Your task to perform on an android device: check battery use Image 0: 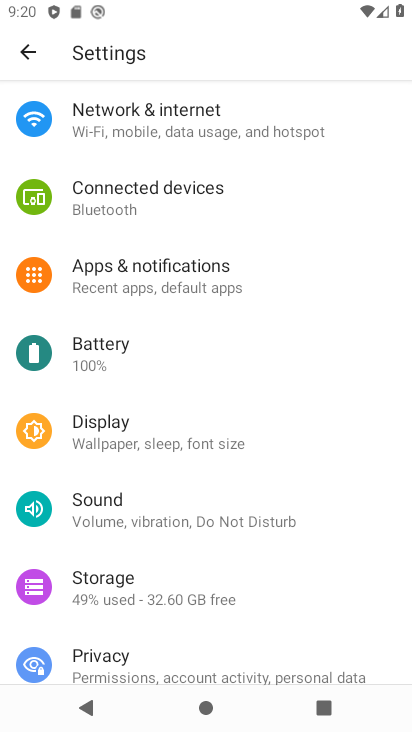
Step 0: drag from (357, 562) to (377, 338)
Your task to perform on an android device: check battery use Image 1: 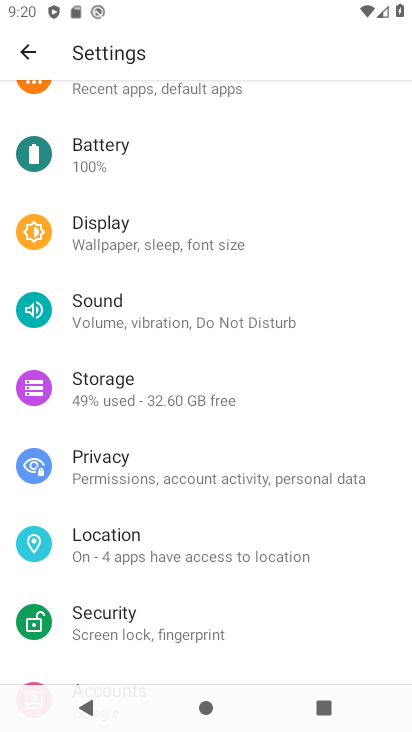
Step 1: drag from (355, 593) to (376, 365)
Your task to perform on an android device: check battery use Image 2: 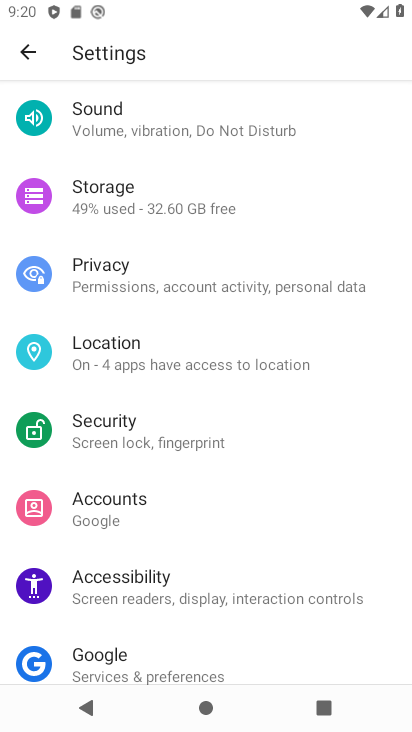
Step 2: drag from (368, 641) to (378, 362)
Your task to perform on an android device: check battery use Image 3: 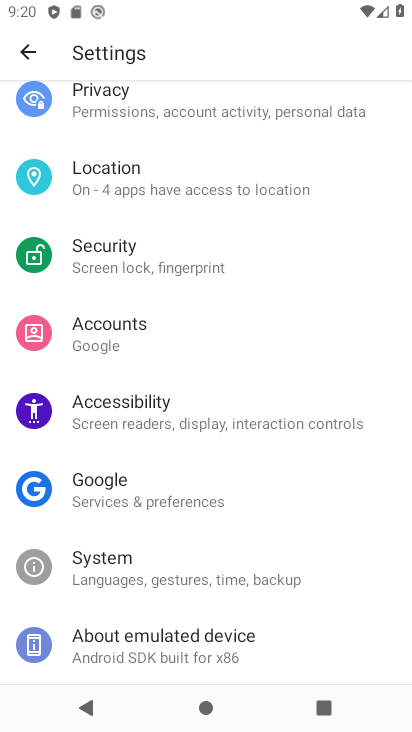
Step 3: drag from (358, 579) to (370, 410)
Your task to perform on an android device: check battery use Image 4: 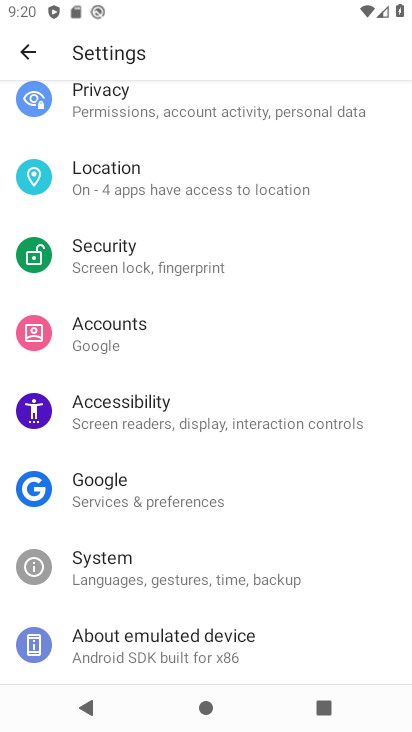
Step 4: drag from (383, 312) to (359, 528)
Your task to perform on an android device: check battery use Image 5: 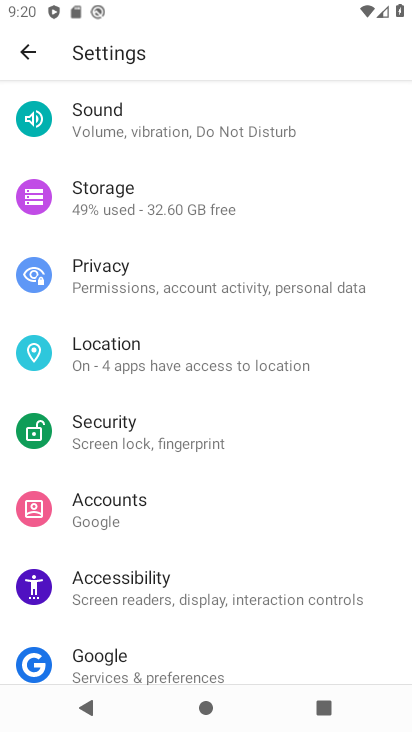
Step 5: drag from (368, 339) to (345, 529)
Your task to perform on an android device: check battery use Image 6: 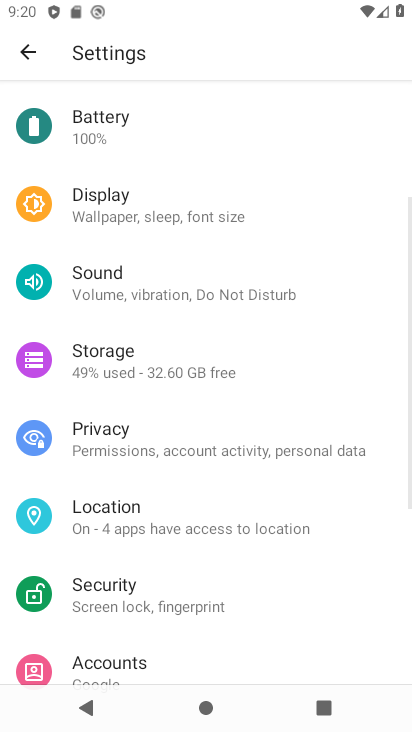
Step 6: drag from (364, 317) to (357, 504)
Your task to perform on an android device: check battery use Image 7: 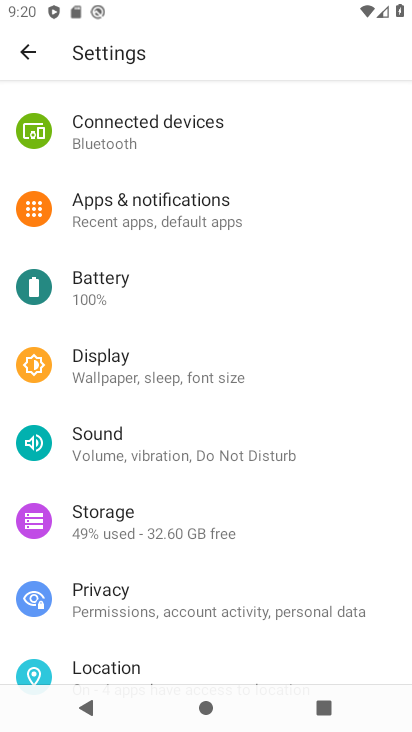
Step 7: drag from (370, 329) to (362, 479)
Your task to perform on an android device: check battery use Image 8: 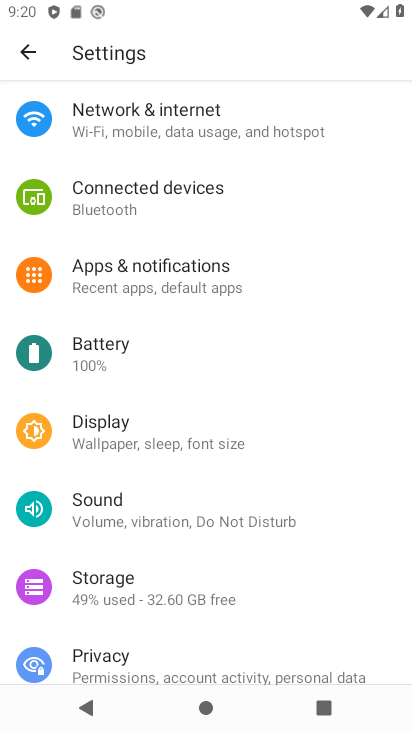
Step 8: drag from (355, 295) to (349, 429)
Your task to perform on an android device: check battery use Image 9: 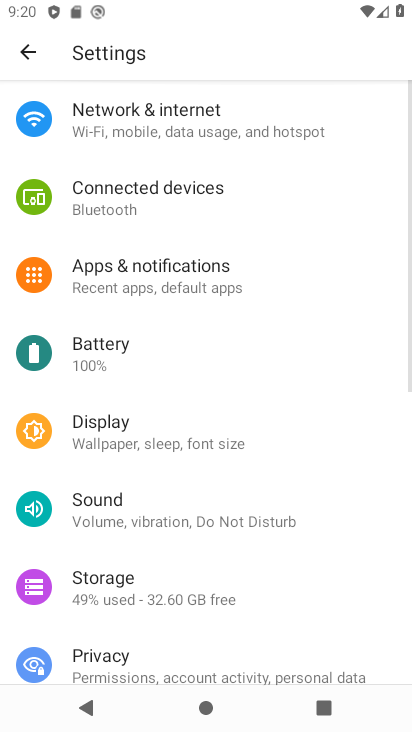
Step 9: click (149, 376)
Your task to perform on an android device: check battery use Image 10: 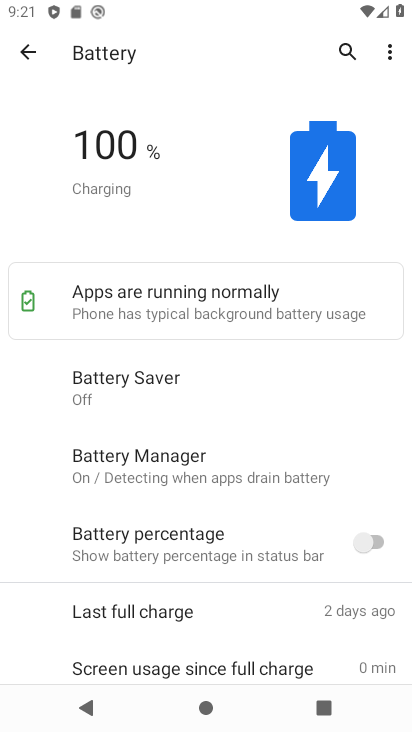
Step 10: click (388, 50)
Your task to perform on an android device: check battery use Image 11: 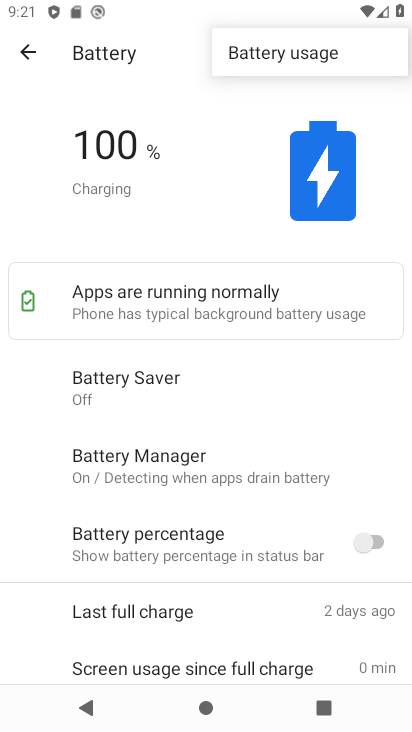
Step 11: click (335, 55)
Your task to perform on an android device: check battery use Image 12: 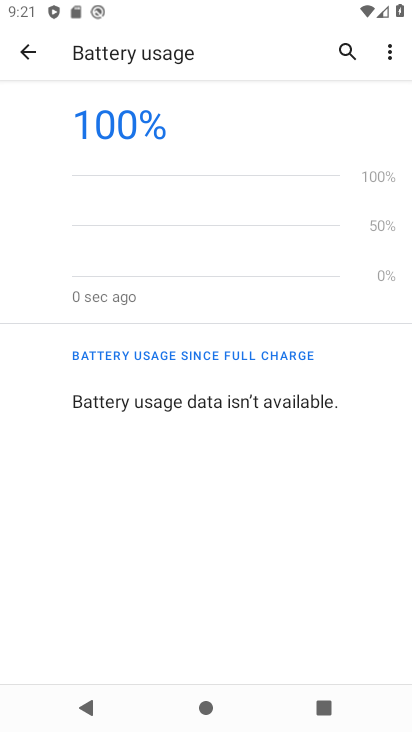
Step 12: task complete